Your task to perform on an android device: What's the weather today? Image 0: 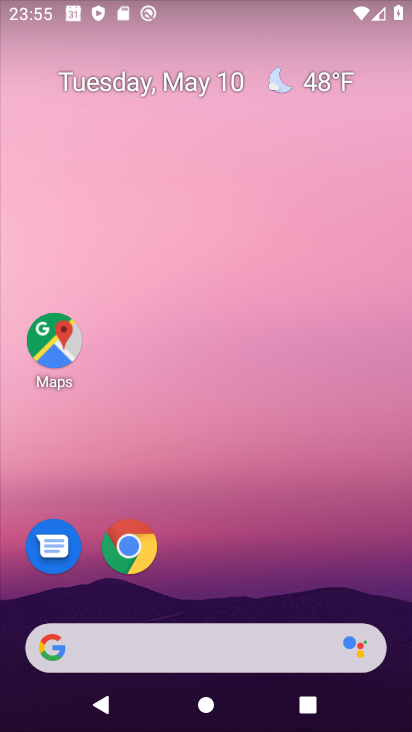
Step 0: drag from (216, 587) to (250, 203)
Your task to perform on an android device: What's the weather today? Image 1: 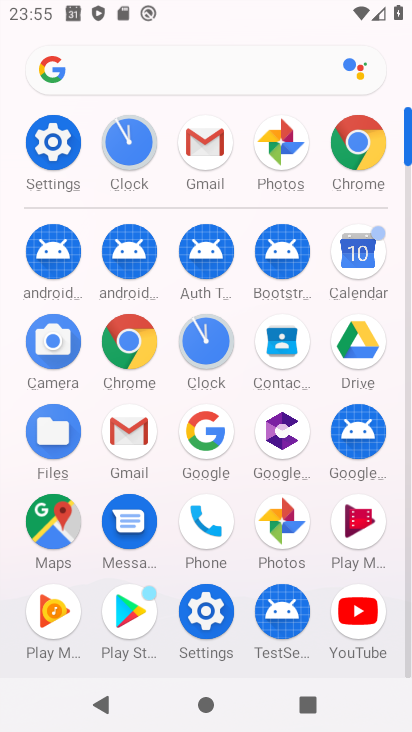
Step 1: click (189, 449)
Your task to perform on an android device: What's the weather today? Image 2: 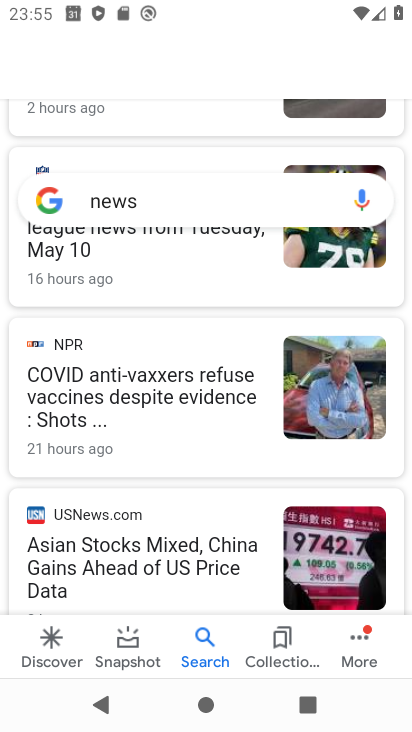
Step 2: drag from (181, 188) to (184, 318)
Your task to perform on an android device: What's the weather today? Image 3: 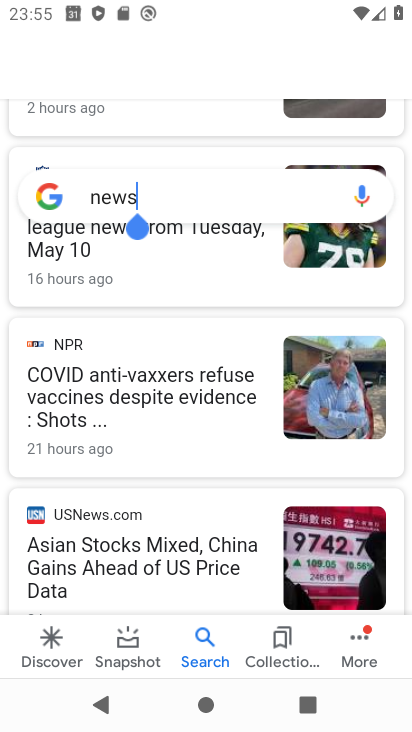
Step 3: drag from (186, 314) to (191, 562)
Your task to perform on an android device: What's the weather today? Image 4: 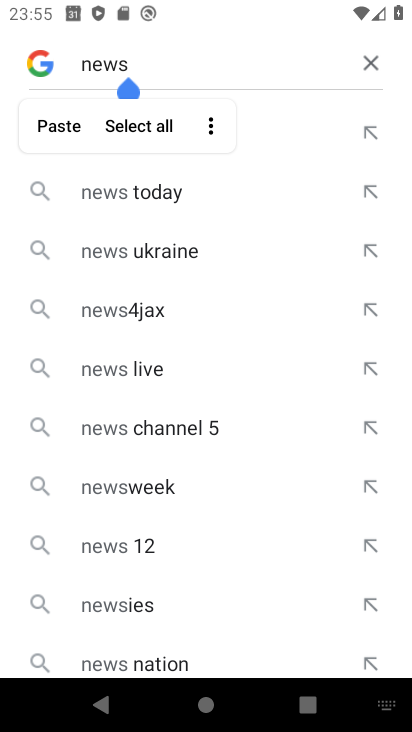
Step 4: click (363, 62)
Your task to perform on an android device: What's the weather today? Image 5: 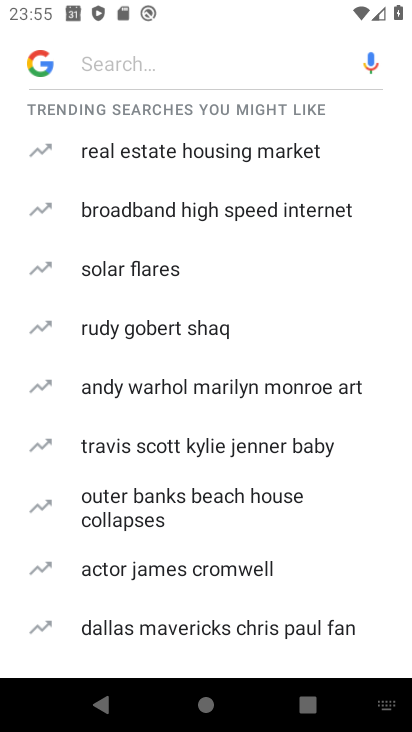
Step 5: click (121, 71)
Your task to perform on an android device: What's the weather today? Image 6: 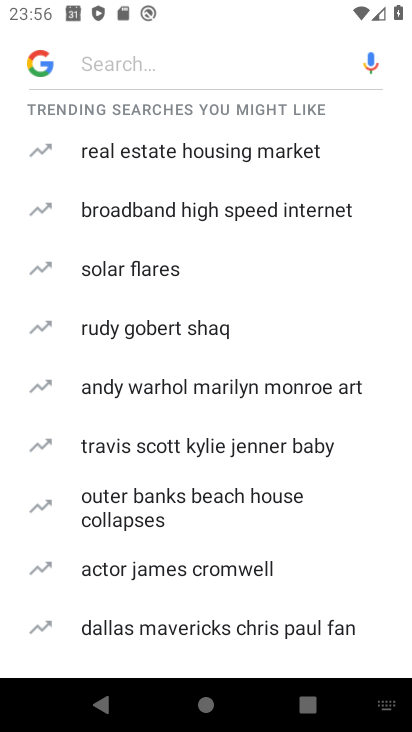
Step 6: type "weather"
Your task to perform on an android device: What's the weather today? Image 7: 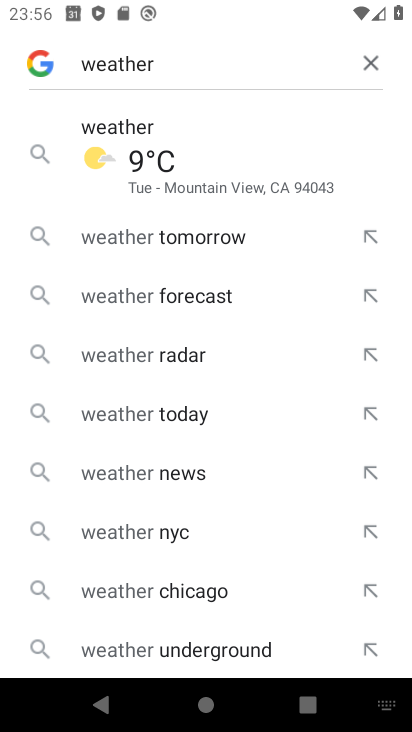
Step 7: click (207, 172)
Your task to perform on an android device: What's the weather today? Image 8: 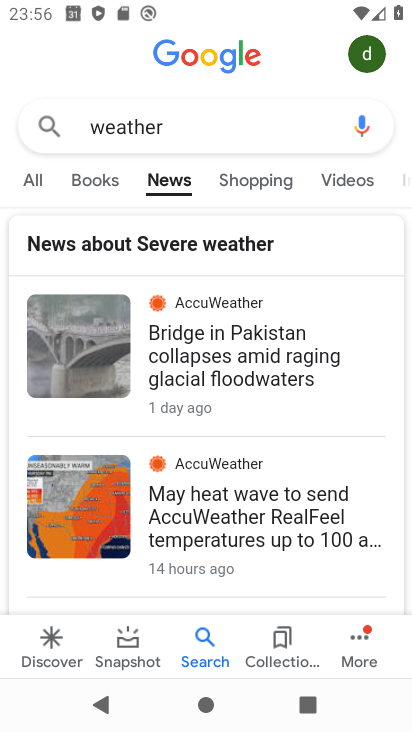
Step 8: click (36, 186)
Your task to perform on an android device: What's the weather today? Image 9: 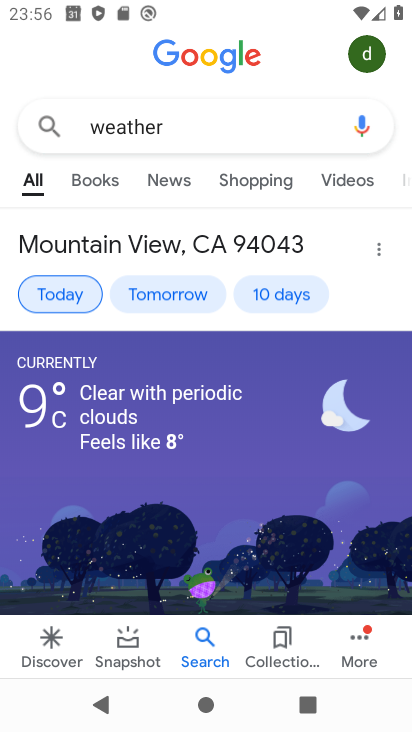
Step 9: task complete